Your task to perform on an android device: Go to ESPN.com Image 0: 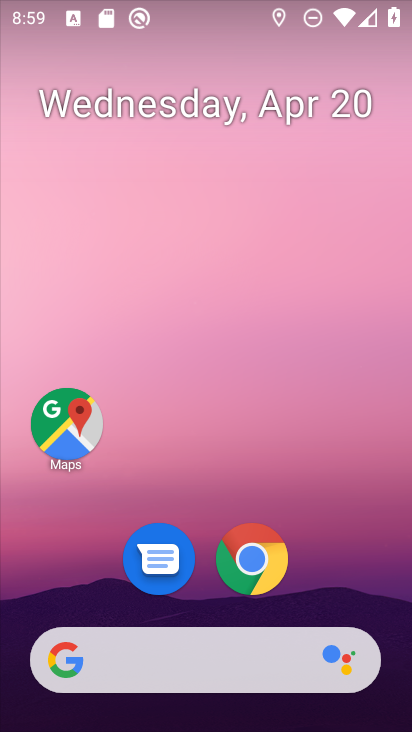
Step 0: click (242, 548)
Your task to perform on an android device: Go to ESPN.com Image 1: 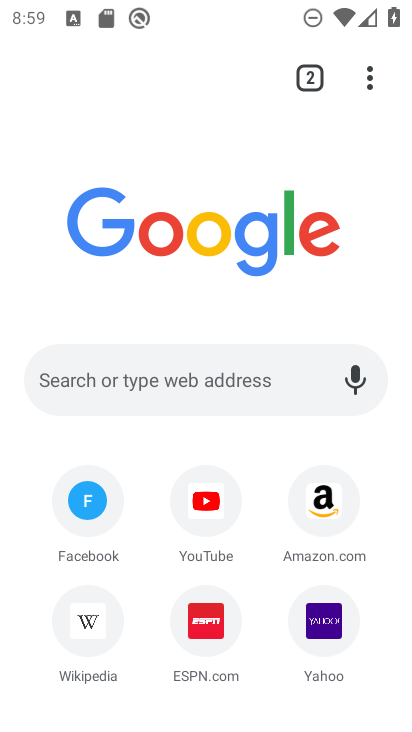
Step 1: click (246, 373)
Your task to perform on an android device: Go to ESPN.com Image 2: 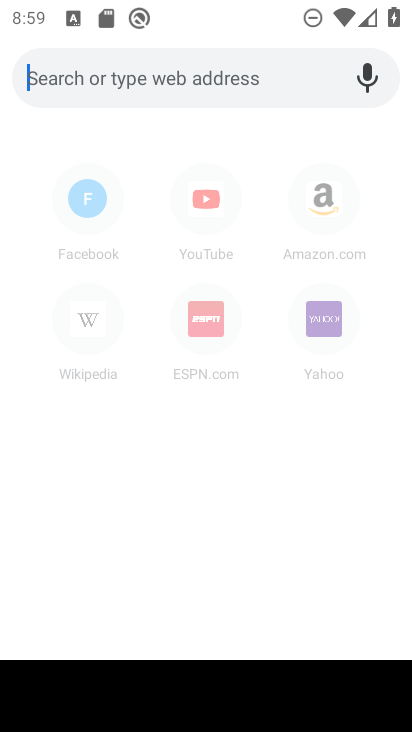
Step 2: type "espn.com"
Your task to perform on an android device: Go to ESPN.com Image 3: 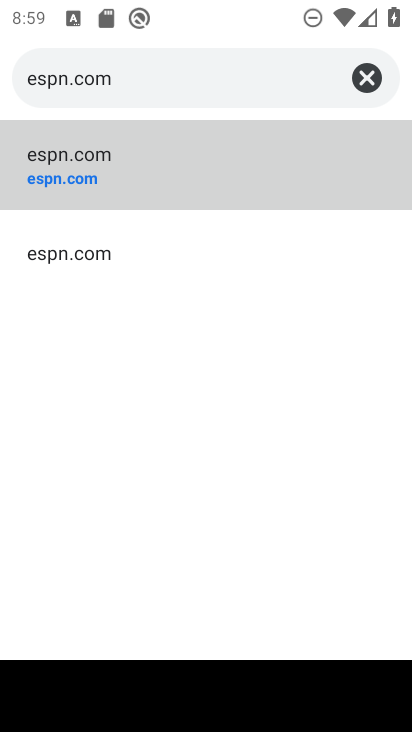
Step 3: click (66, 169)
Your task to perform on an android device: Go to ESPN.com Image 4: 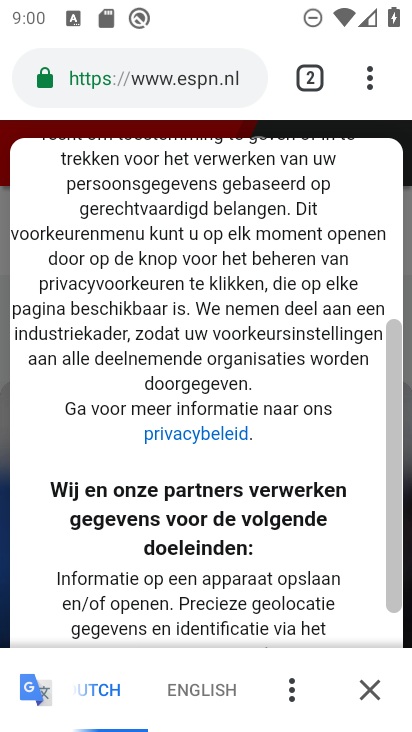
Step 4: task complete